Your task to perform on an android device: Open privacy settings Image 0: 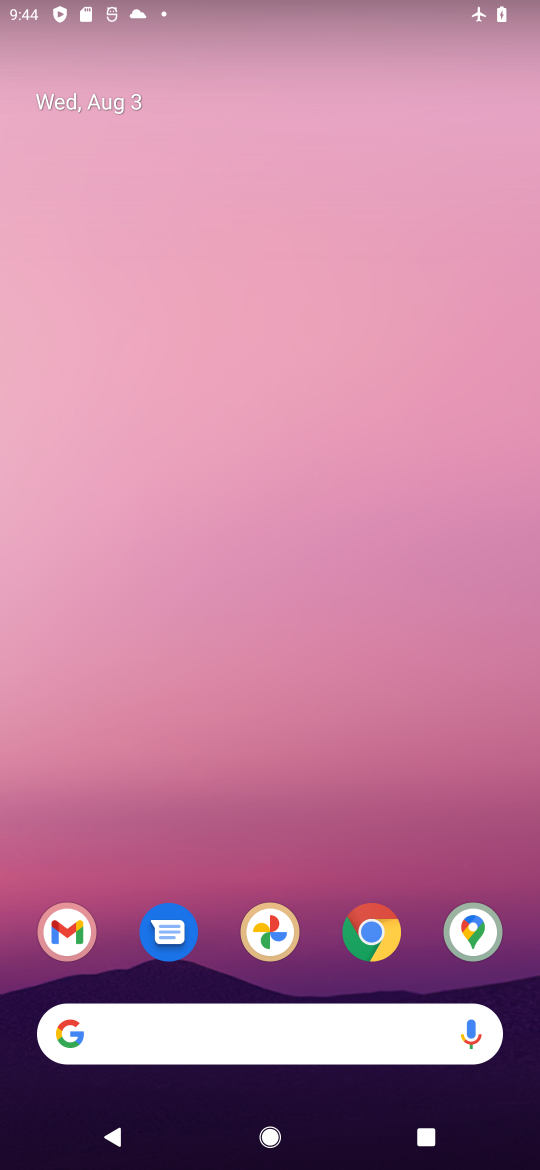
Step 0: drag from (401, 870) to (347, 70)
Your task to perform on an android device: Open privacy settings Image 1: 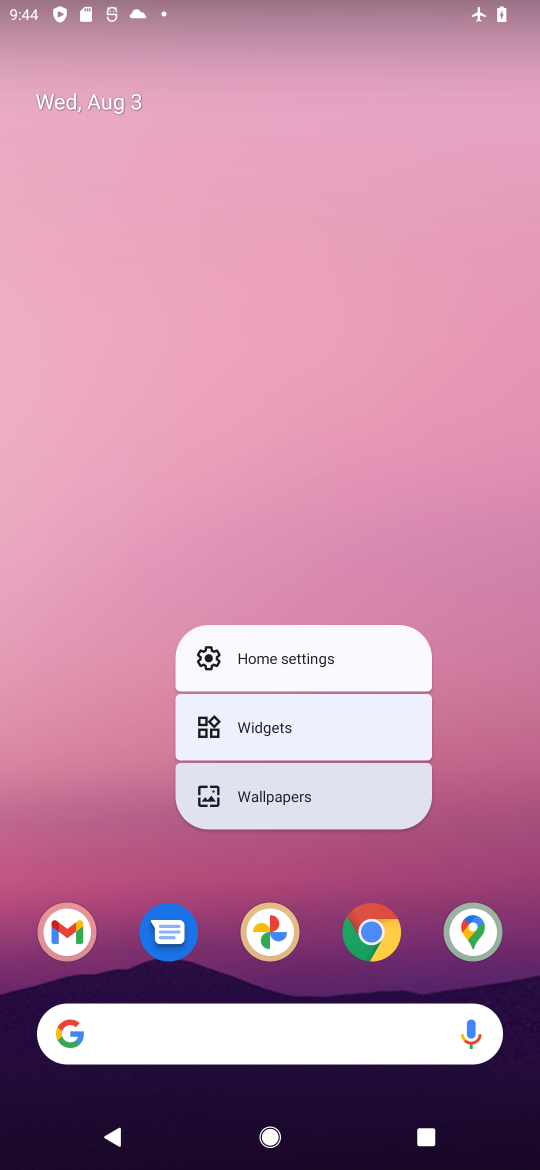
Step 1: drag from (524, 871) to (379, 49)
Your task to perform on an android device: Open privacy settings Image 2: 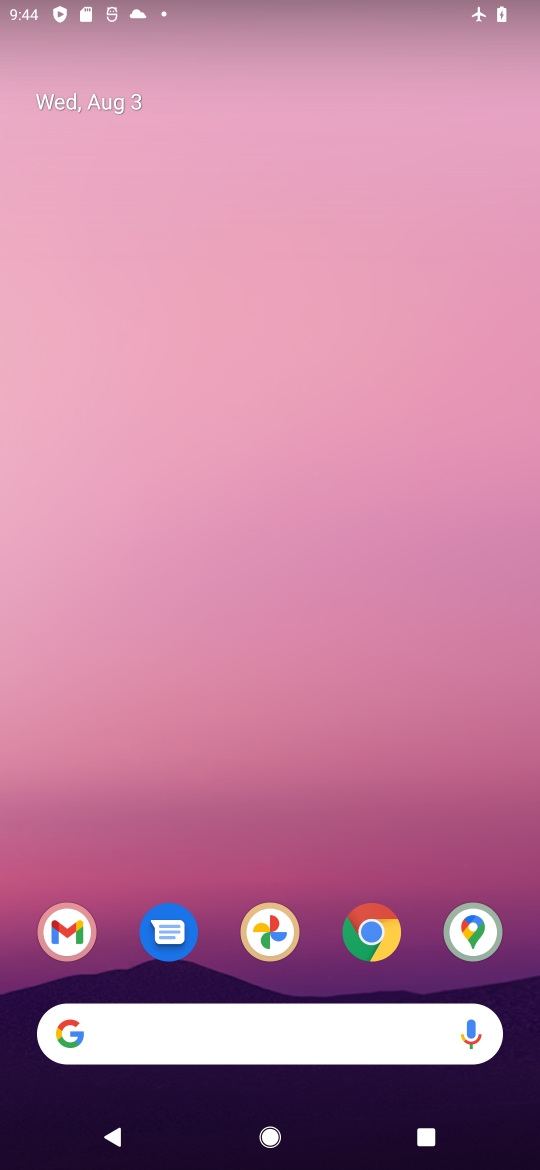
Step 2: drag from (426, 887) to (386, 100)
Your task to perform on an android device: Open privacy settings Image 3: 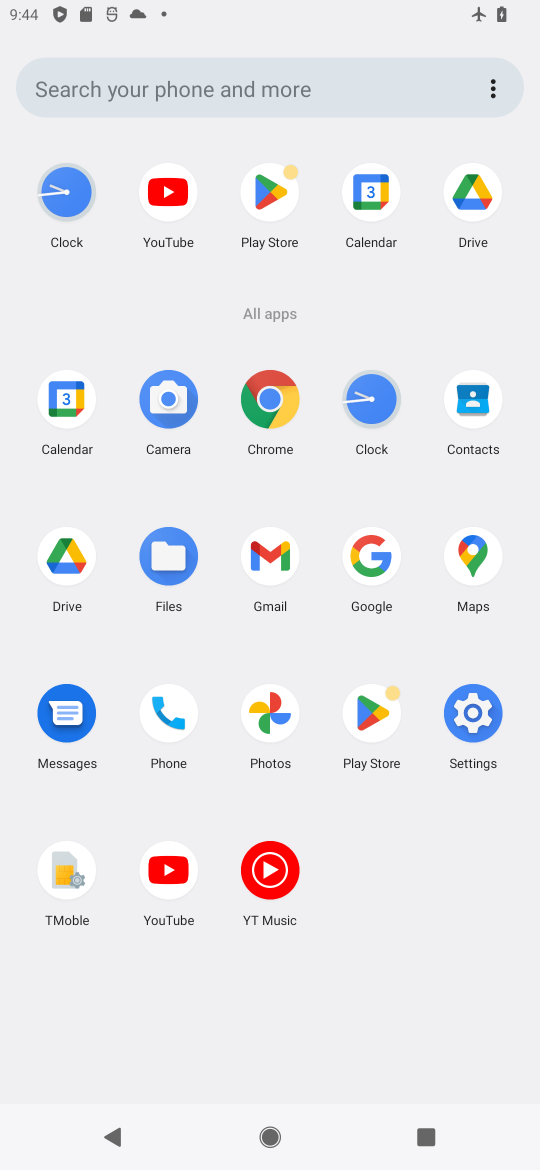
Step 3: click (490, 742)
Your task to perform on an android device: Open privacy settings Image 4: 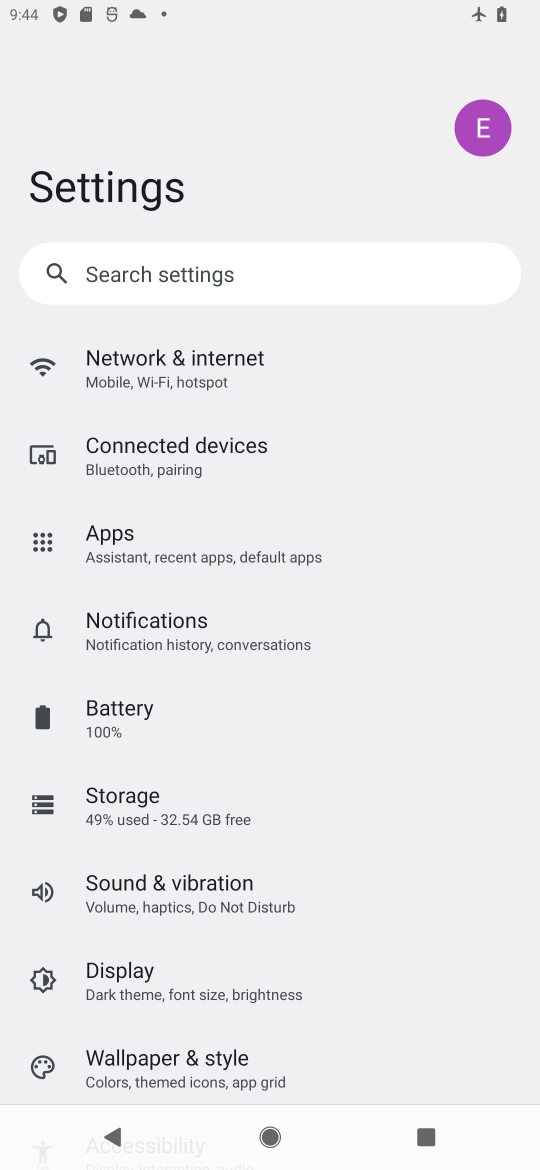
Step 4: drag from (300, 1032) to (247, 221)
Your task to perform on an android device: Open privacy settings Image 5: 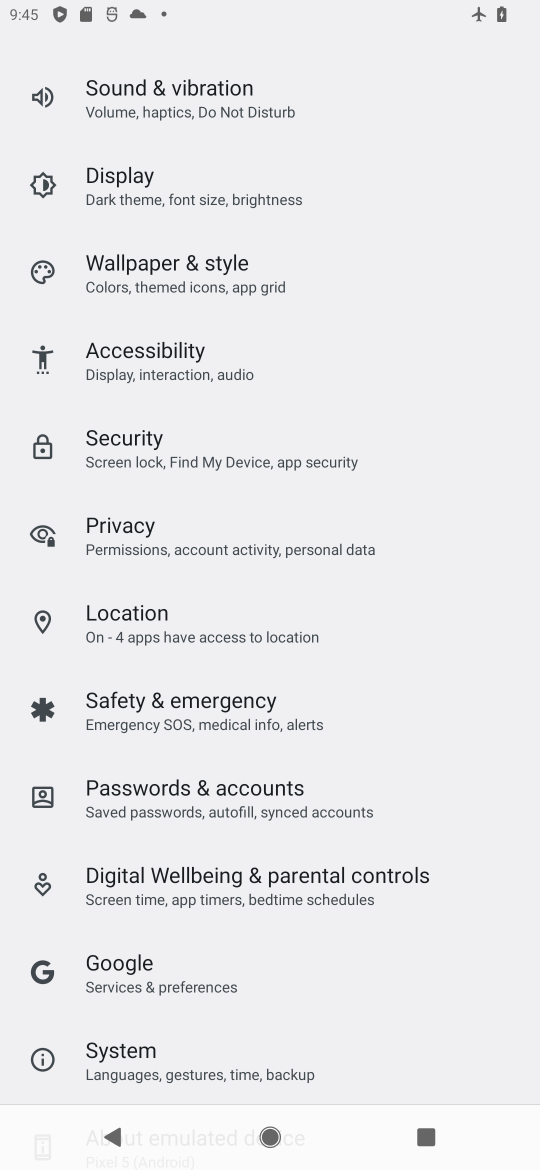
Step 5: click (234, 538)
Your task to perform on an android device: Open privacy settings Image 6: 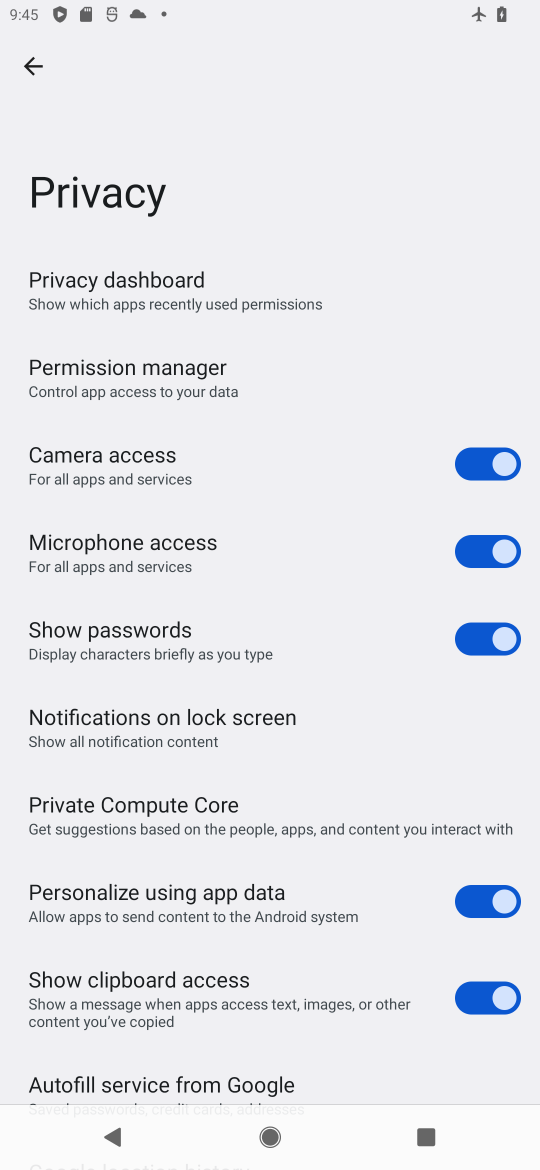
Step 6: task complete